Your task to perform on an android device: turn off sleep mode Image 0: 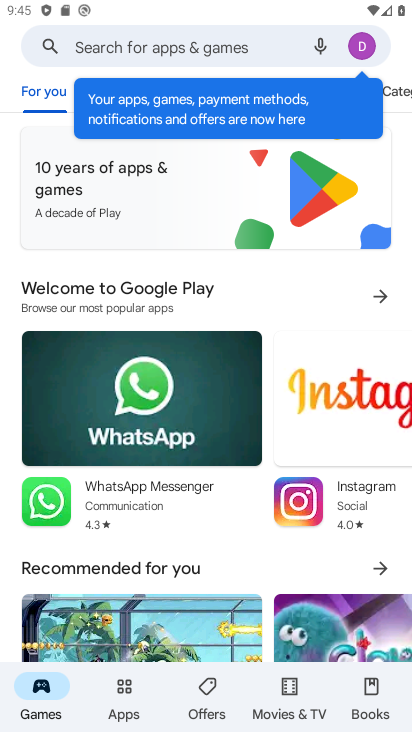
Step 0: press home button
Your task to perform on an android device: turn off sleep mode Image 1: 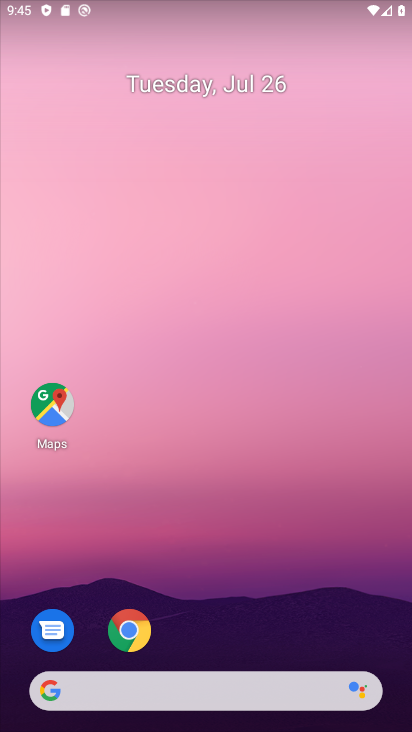
Step 1: drag from (369, 631) to (290, 57)
Your task to perform on an android device: turn off sleep mode Image 2: 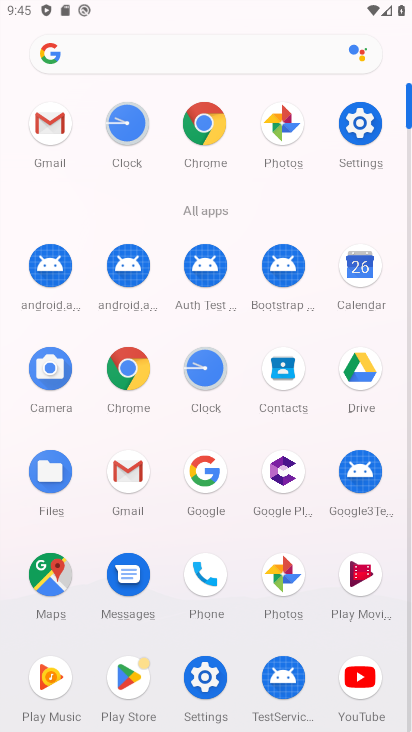
Step 2: click (205, 675)
Your task to perform on an android device: turn off sleep mode Image 3: 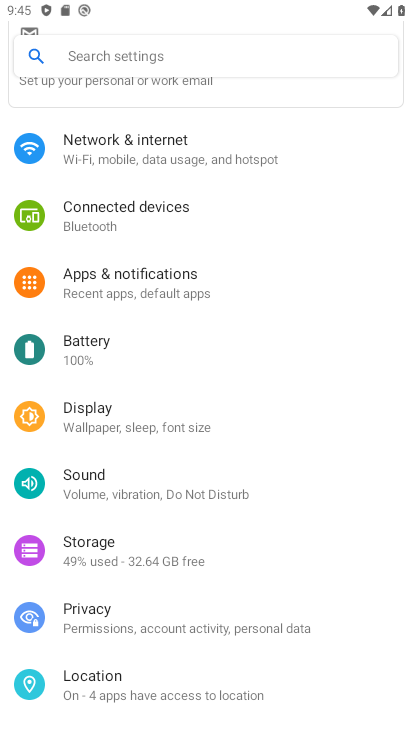
Step 3: click (110, 415)
Your task to perform on an android device: turn off sleep mode Image 4: 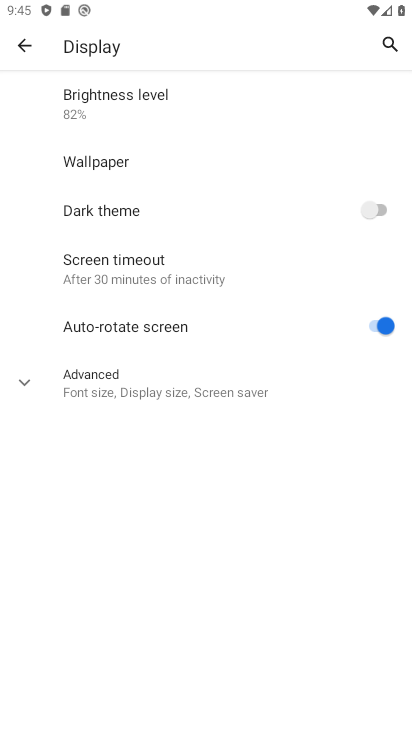
Step 4: click (26, 374)
Your task to perform on an android device: turn off sleep mode Image 5: 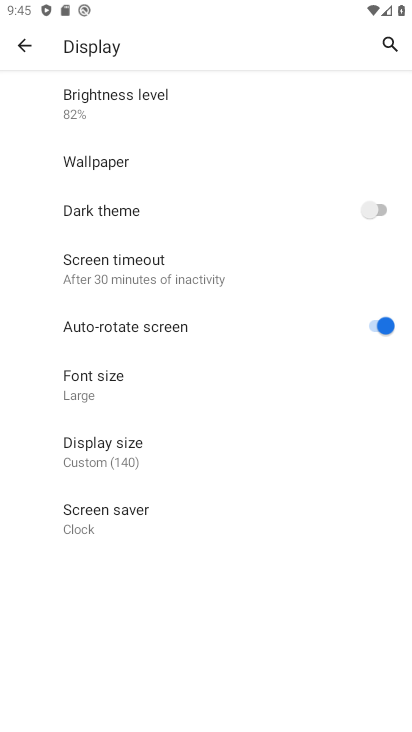
Step 5: task complete